Your task to perform on an android device: Search for Italian restaurants on Maps Image 0: 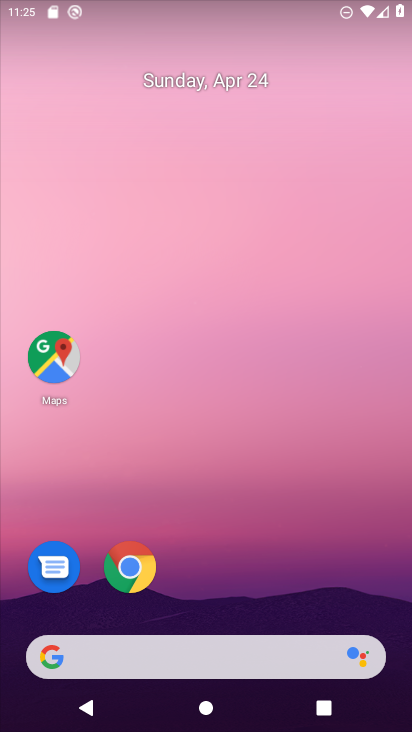
Step 0: drag from (329, 550) to (313, 140)
Your task to perform on an android device: Search for Italian restaurants on Maps Image 1: 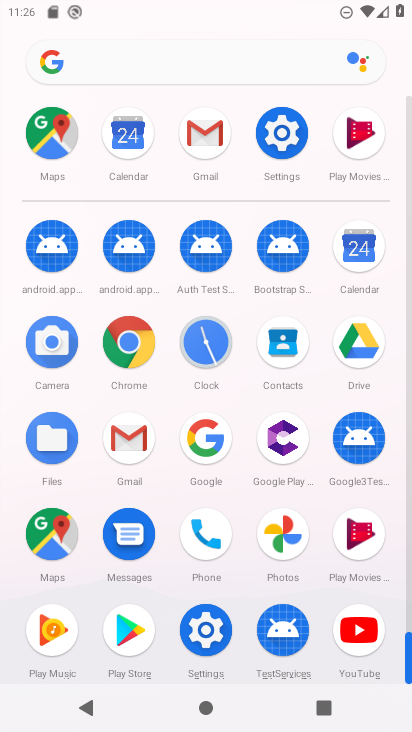
Step 1: click (48, 535)
Your task to perform on an android device: Search for Italian restaurants on Maps Image 2: 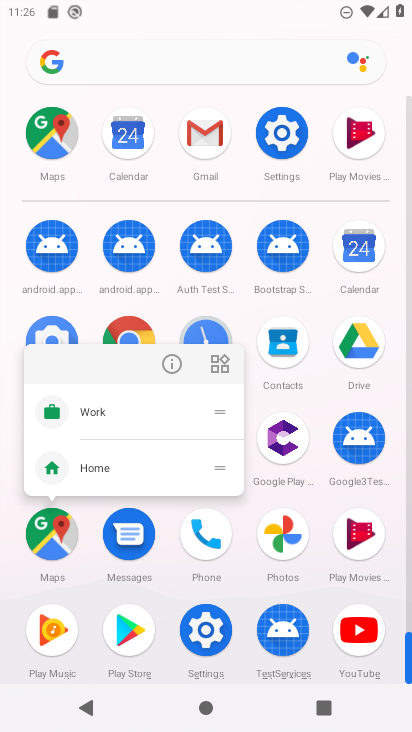
Step 2: click (58, 550)
Your task to perform on an android device: Search for Italian restaurants on Maps Image 3: 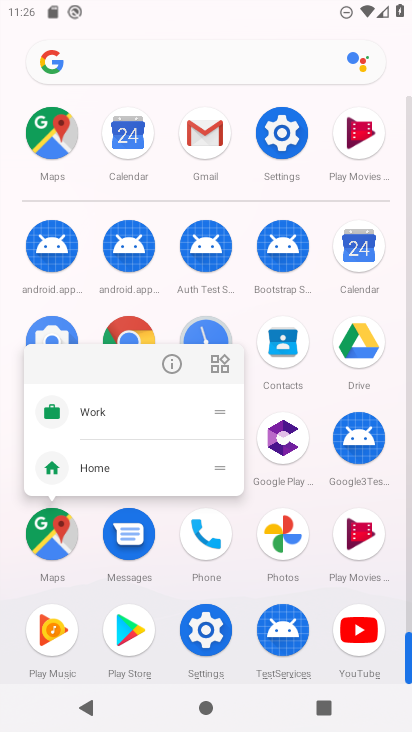
Step 3: click (58, 549)
Your task to perform on an android device: Search for Italian restaurants on Maps Image 4: 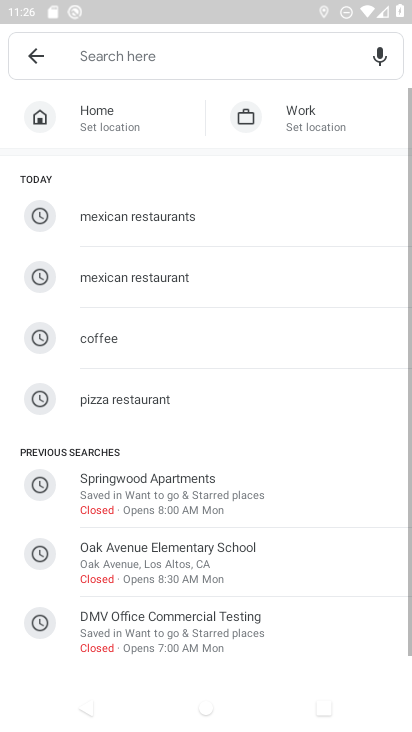
Step 4: click (58, 549)
Your task to perform on an android device: Search for Italian restaurants on Maps Image 5: 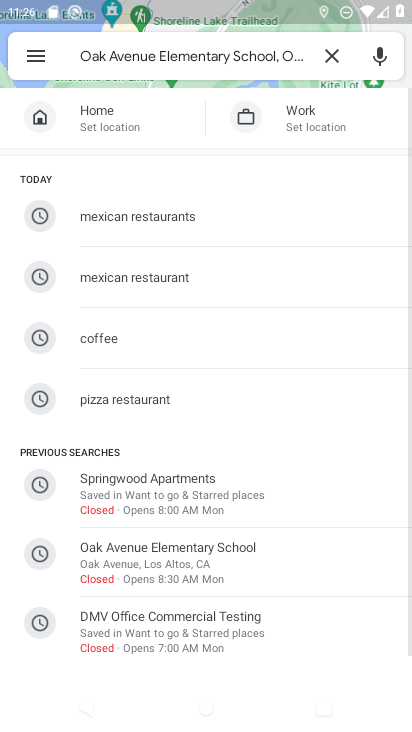
Step 5: click (263, 59)
Your task to perform on an android device: Search for Italian restaurants on Maps Image 6: 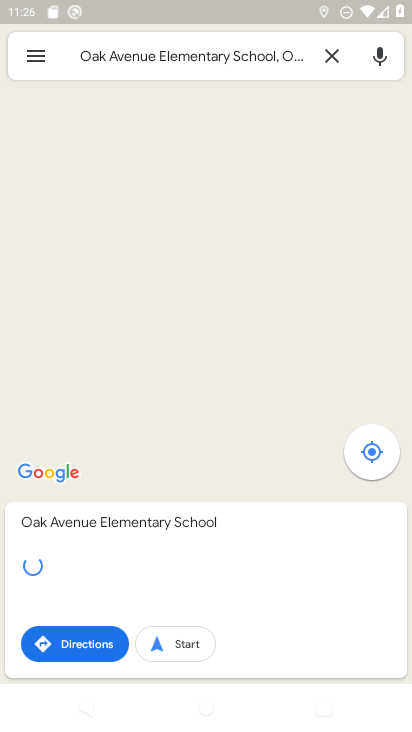
Step 6: click (270, 47)
Your task to perform on an android device: Search for Italian restaurants on Maps Image 7: 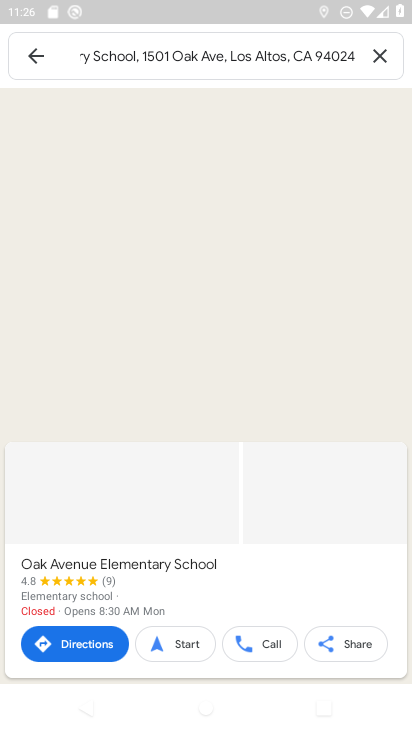
Step 7: click (332, 53)
Your task to perform on an android device: Search for Italian restaurants on Maps Image 8: 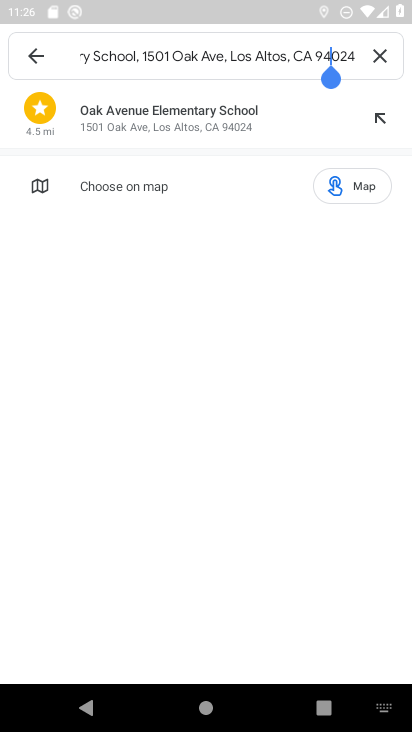
Step 8: click (382, 56)
Your task to perform on an android device: Search for Italian restaurants on Maps Image 9: 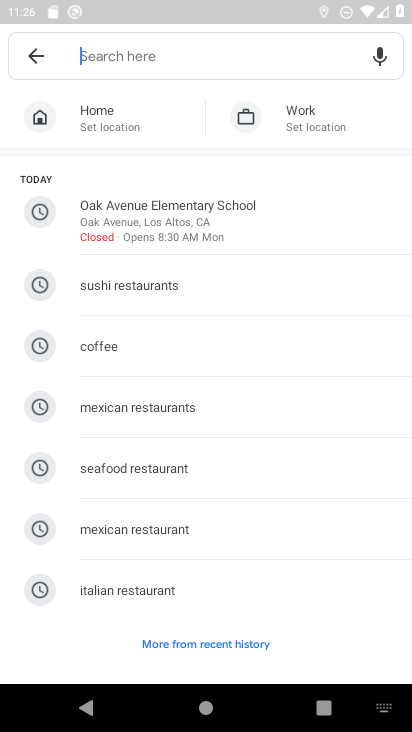
Step 9: click (152, 594)
Your task to perform on an android device: Search for Italian restaurants on Maps Image 10: 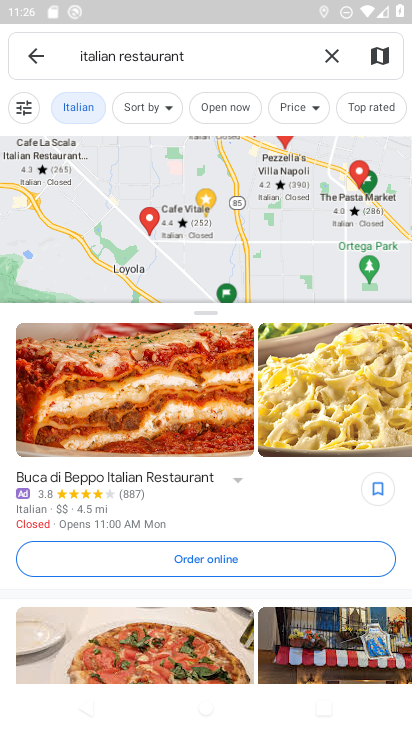
Step 10: task complete